Your task to perform on an android device: Open Google Chrome and open the bookmarks view Image 0: 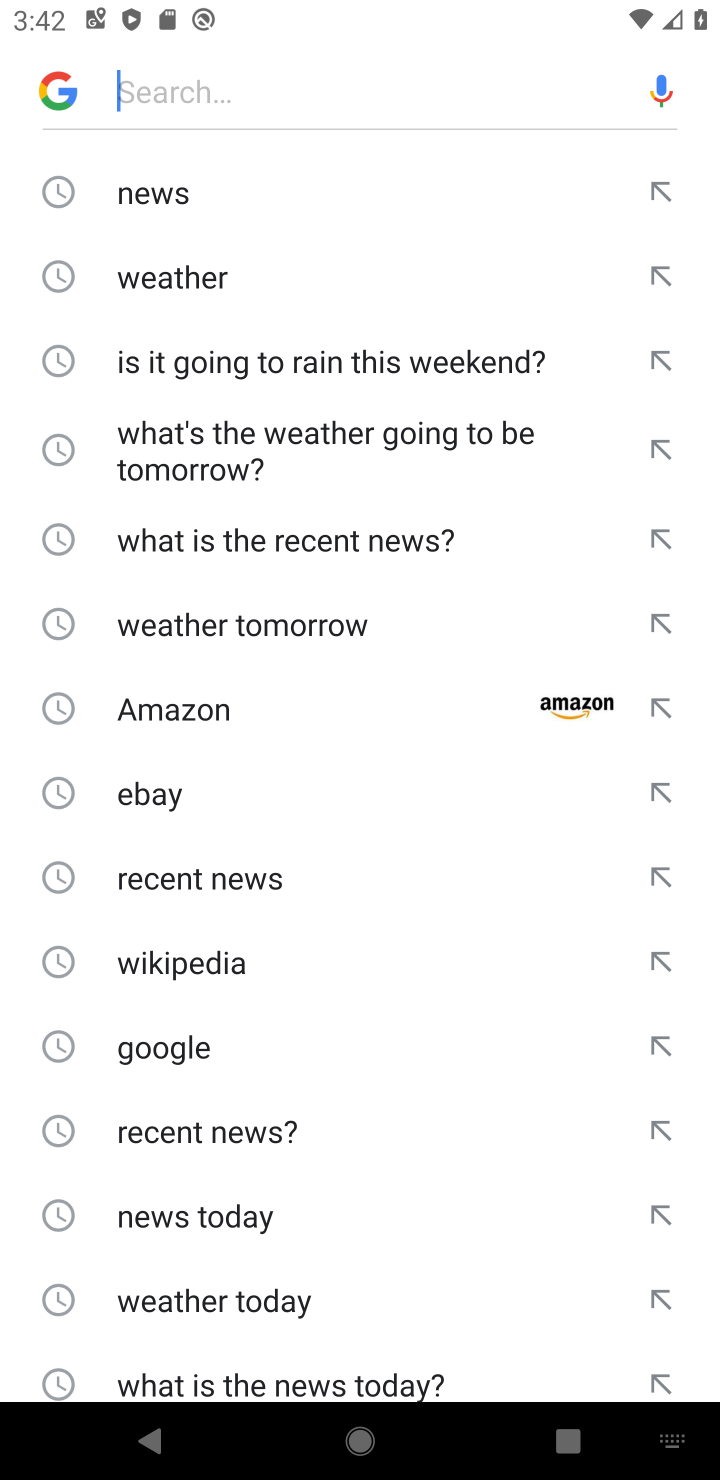
Step 0: press home button
Your task to perform on an android device: Open Google Chrome and open the bookmarks view Image 1: 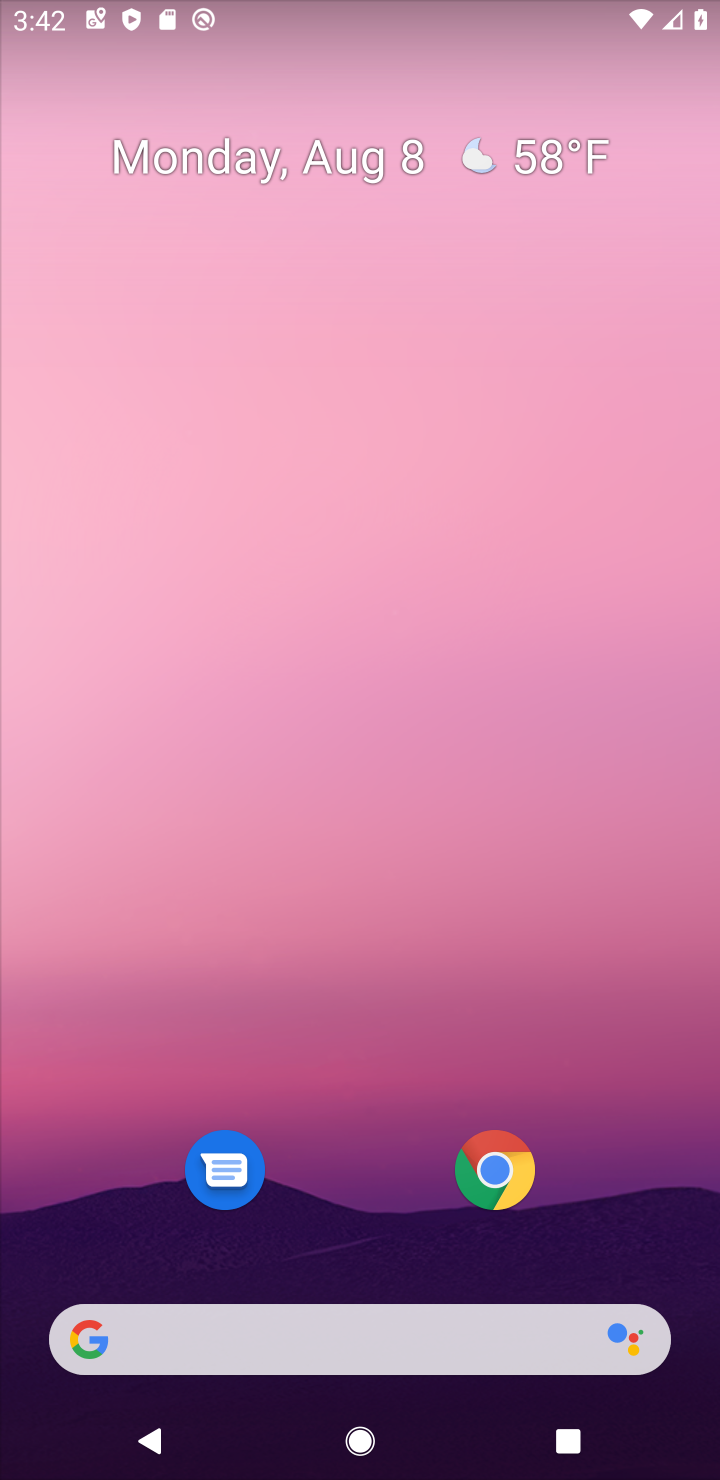
Step 1: click (516, 1181)
Your task to perform on an android device: Open Google Chrome and open the bookmarks view Image 2: 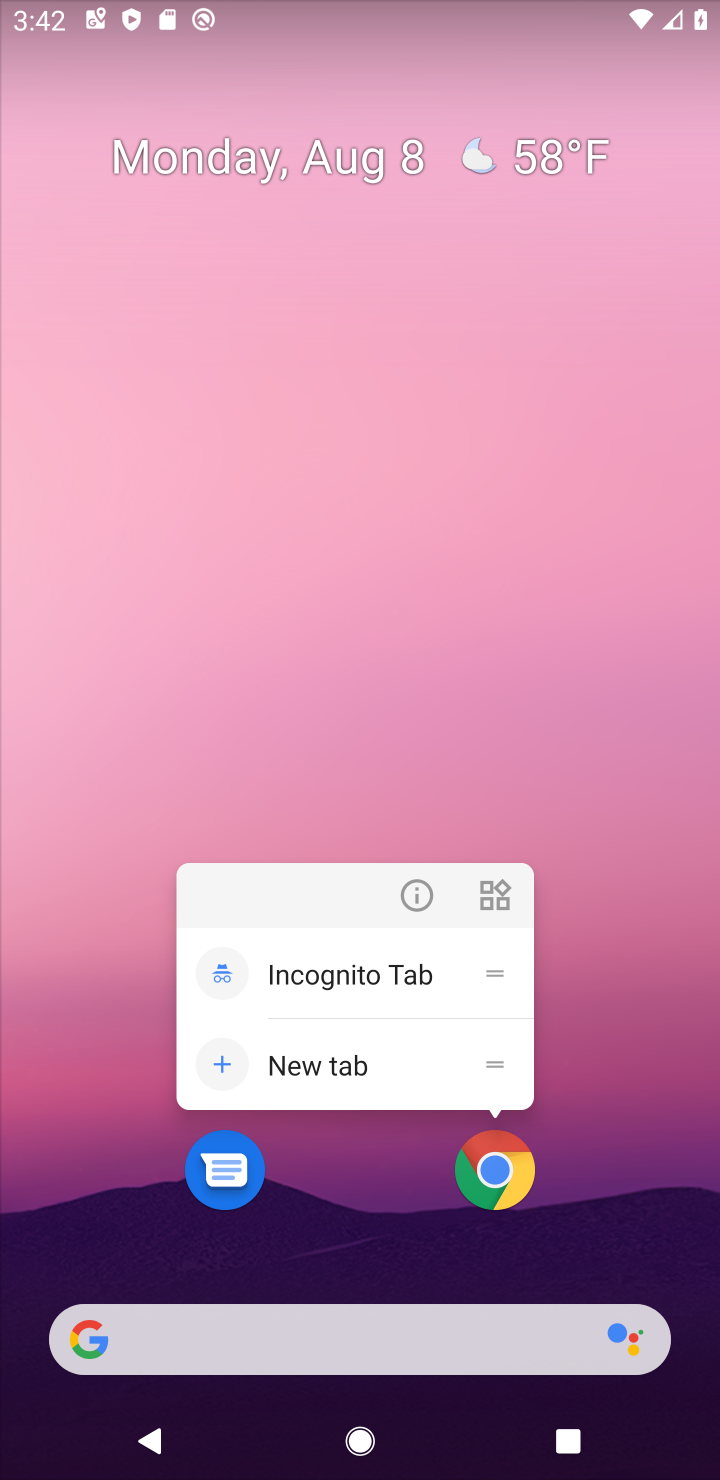
Step 2: click (516, 1181)
Your task to perform on an android device: Open Google Chrome and open the bookmarks view Image 3: 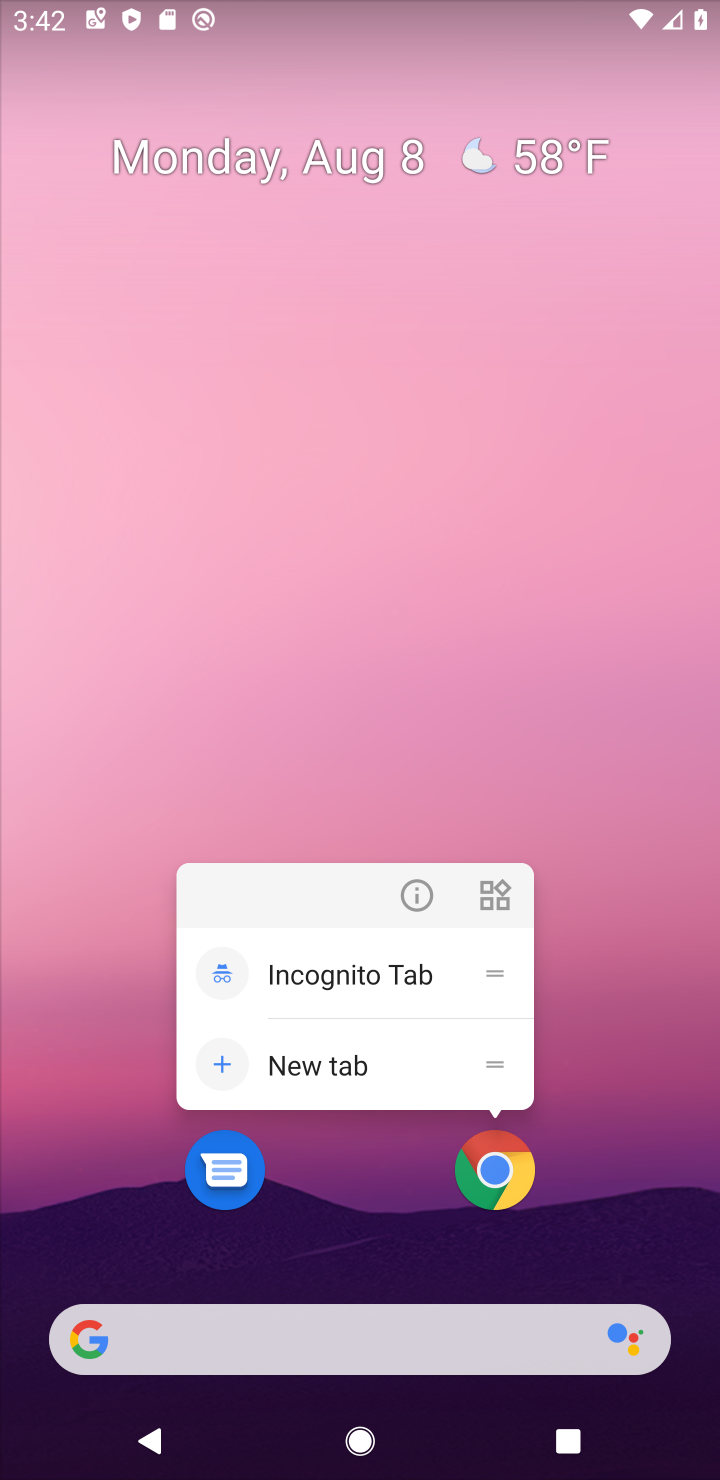
Step 3: click (516, 1181)
Your task to perform on an android device: Open Google Chrome and open the bookmarks view Image 4: 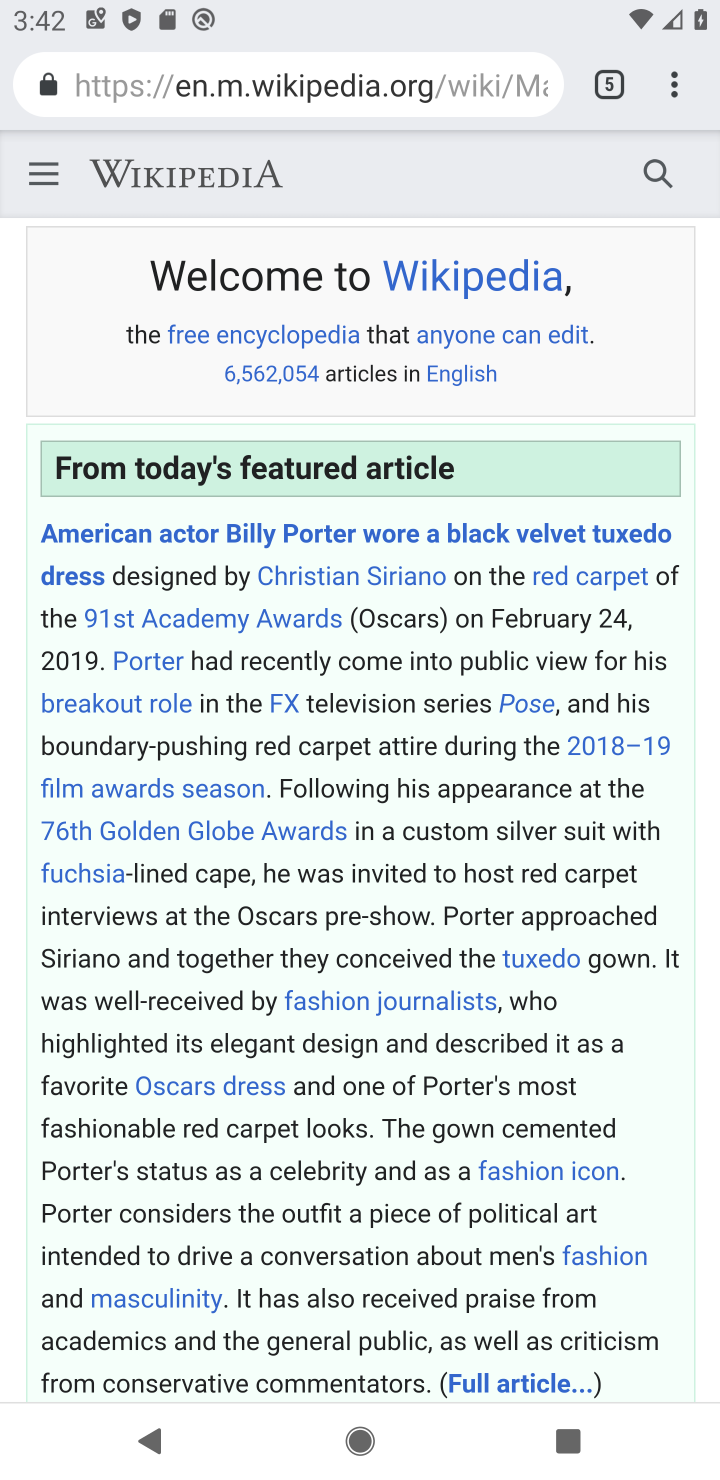
Step 4: click (672, 89)
Your task to perform on an android device: Open Google Chrome and open the bookmarks view Image 5: 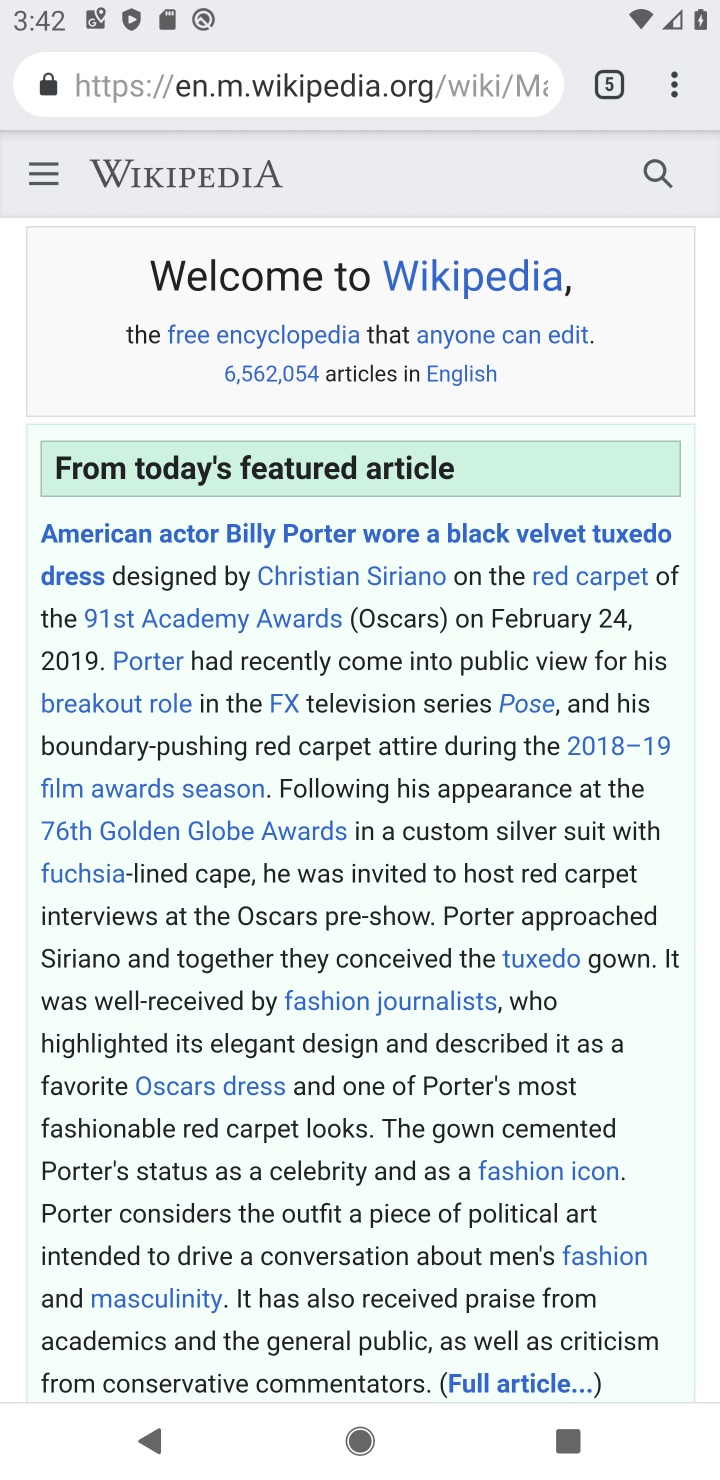
Step 5: task complete